Your task to perform on an android device: Search for "apple airpods pro" on amazon.com, select the first entry, and add it to the cart. Image 0: 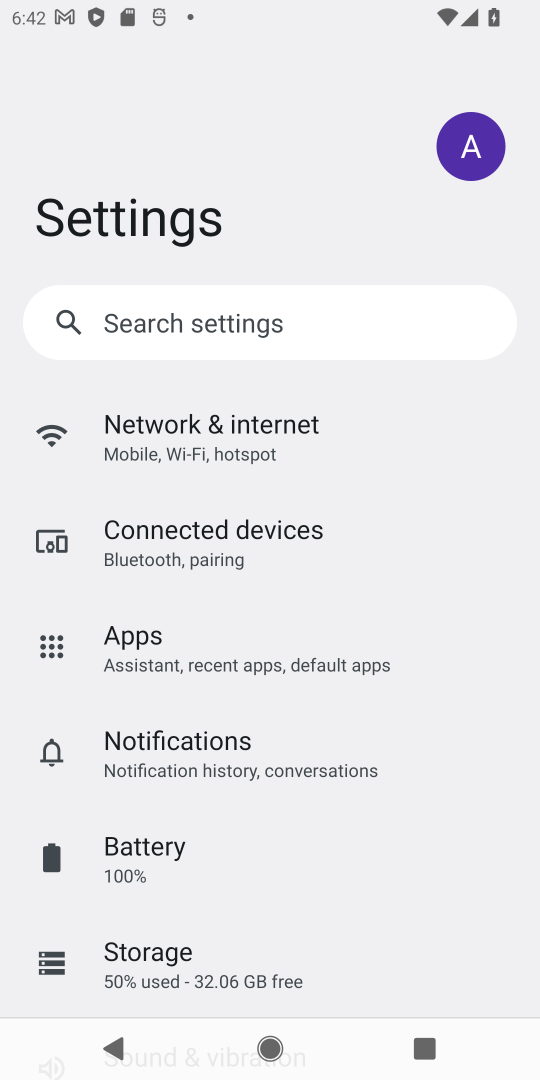
Step 0: press home button
Your task to perform on an android device: Search for "apple airpods pro" on amazon.com, select the first entry, and add it to the cart. Image 1: 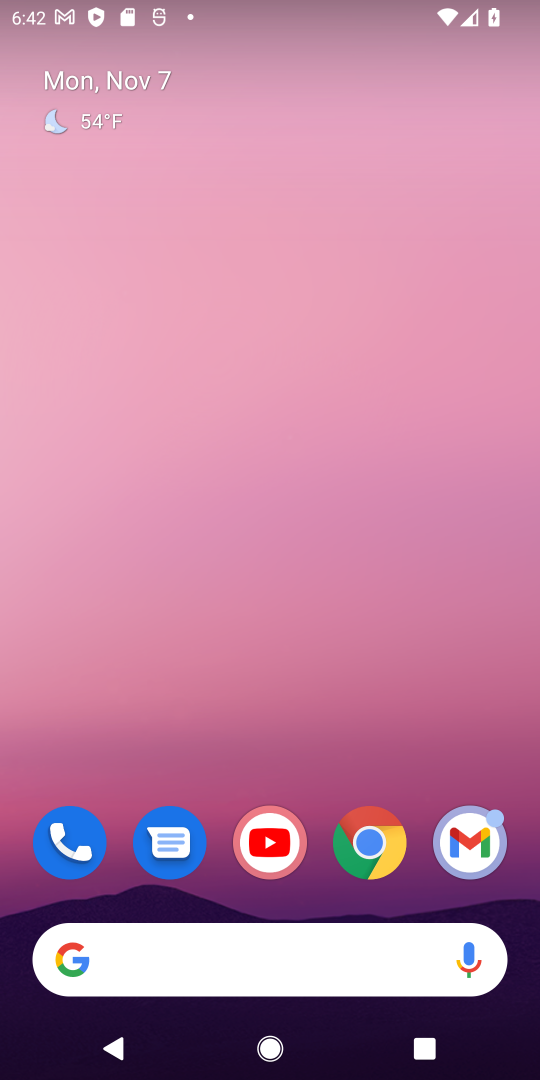
Step 1: click (365, 840)
Your task to perform on an android device: Search for "apple airpods pro" on amazon.com, select the first entry, and add it to the cart. Image 2: 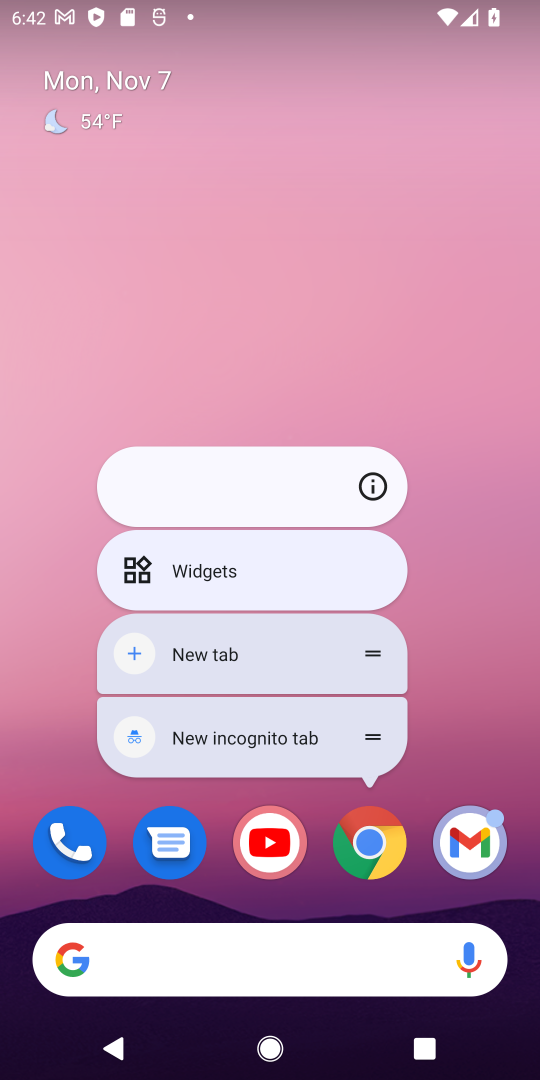
Step 2: click (375, 850)
Your task to perform on an android device: Search for "apple airpods pro" on amazon.com, select the first entry, and add it to the cart. Image 3: 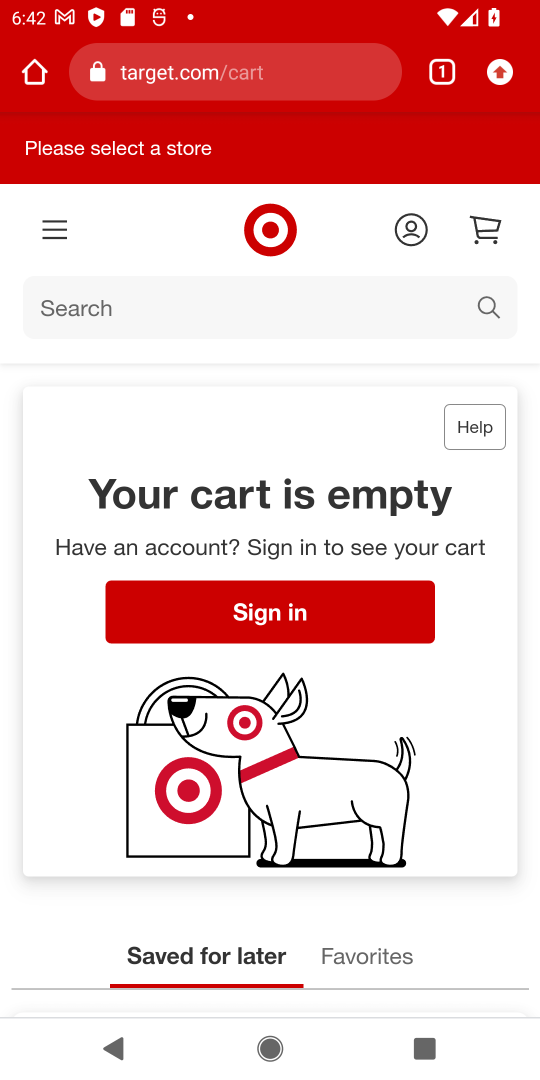
Step 3: click (263, 77)
Your task to perform on an android device: Search for "apple airpods pro" on amazon.com, select the first entry, and add it to the cart. Image 4: 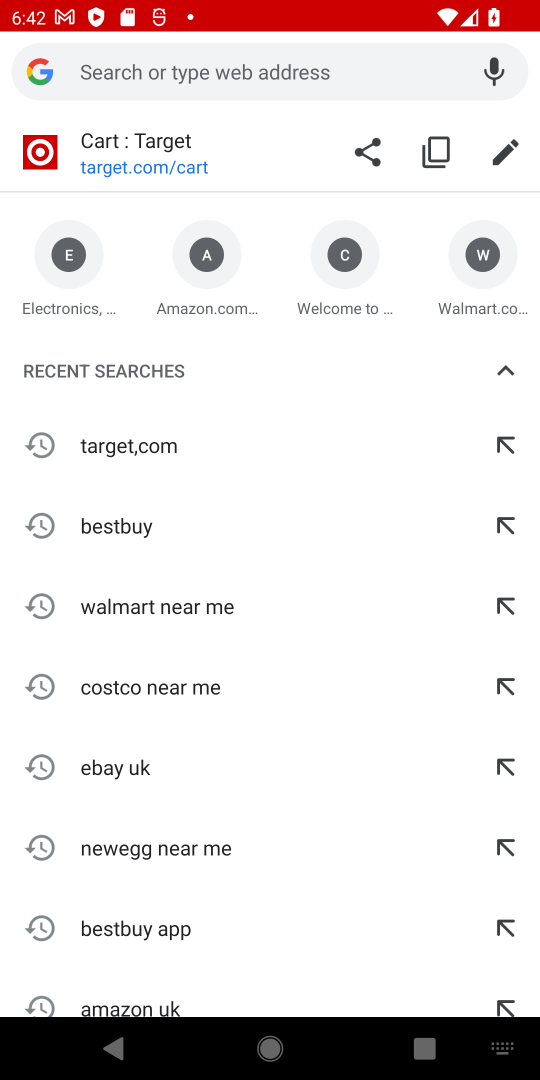
Step 4: click (231, 308)
Your task to perform on an android device: Search for "apple airpods pro" on amazon.com, select the first entry, and add it to the cart. Image 5: 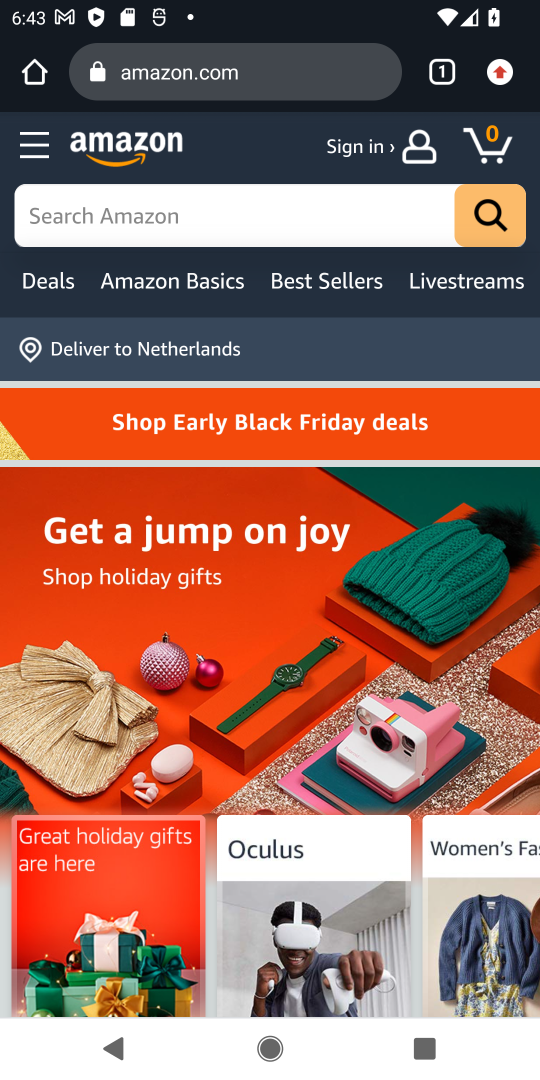
Step 5: click (198, 191)
Your task to perform on an android device: Search for "apple airpods pro" on amazon.com, select the first entry, and add it to the cart. Image 6: 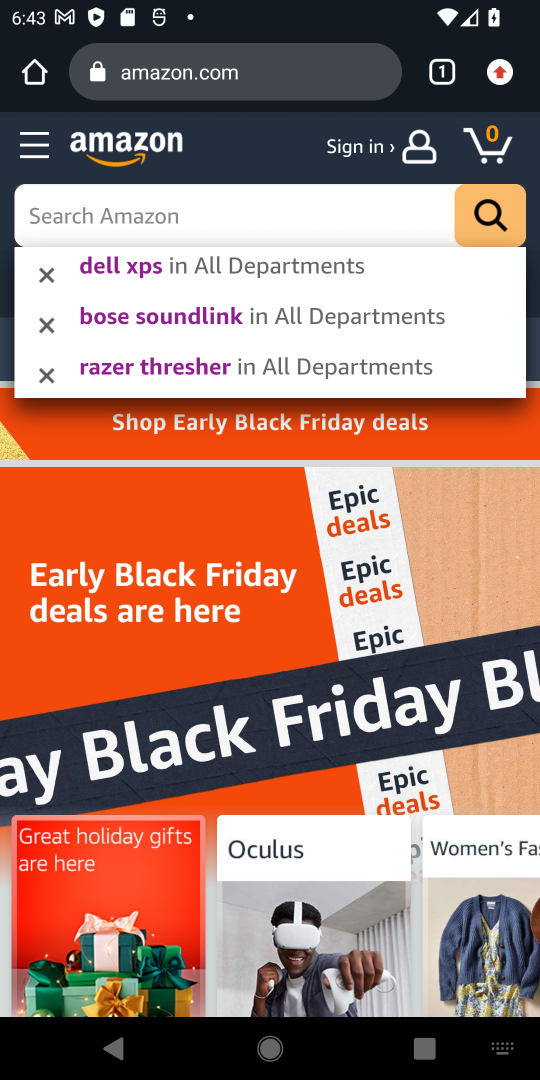
Step 6: press enter
Your task to perform on an android device: Search for "apple airpods pro" on amazon.com, select the first entry, and add it to the cart. Image 7: 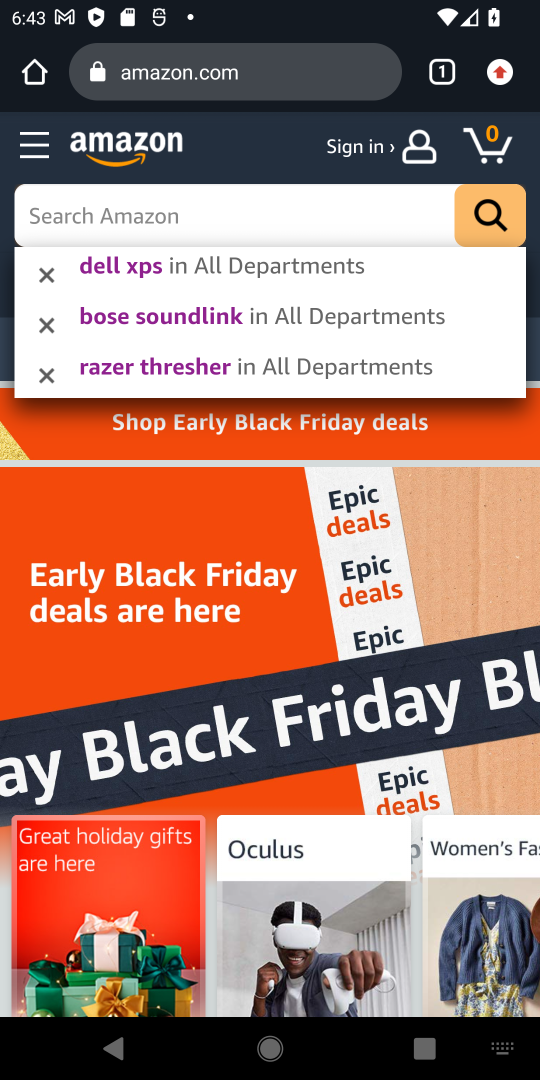
Step 7: type "apple airpods pro"
Your task to perform on an android device: Search for "apple airpods pro" on amazon.com, select the first entry, and add it to the cart. Image 8: 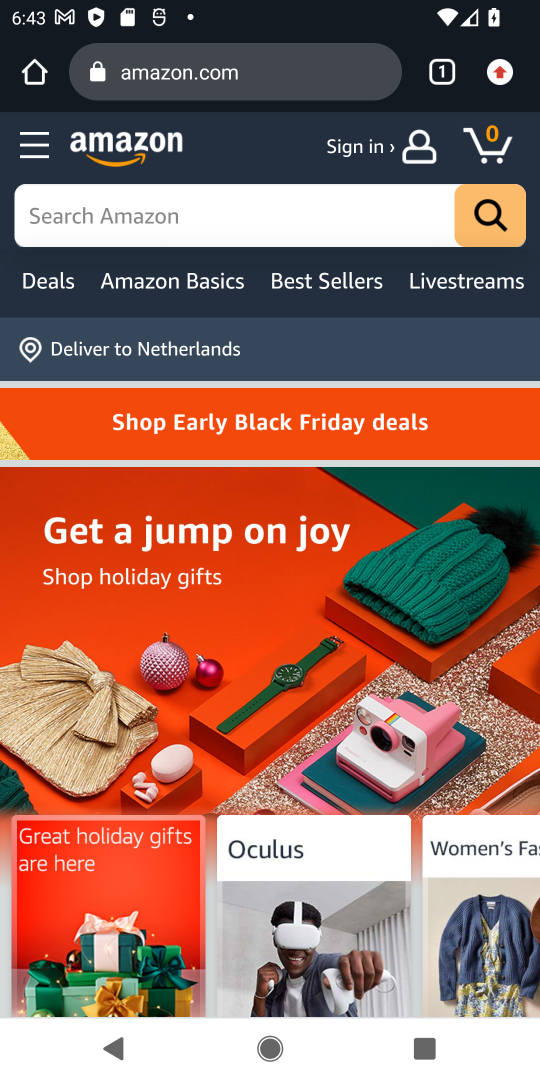
Step 8: click (153, 207)
Your task to perform on an android device: Search for "apple airpods pro" on amazon.com, select the first entry, and add it to the cart. Image 9: 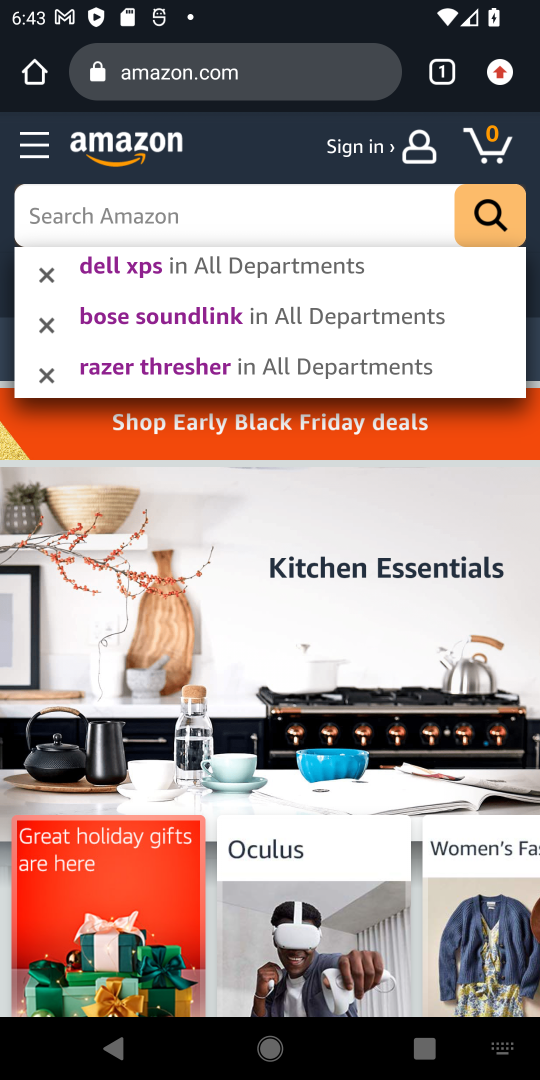
Step 9: press enter
Your task to perform on an android device: Search for "apple airpods pro" on amazon.com, select the first entry, and add it to the cart. Image 10: 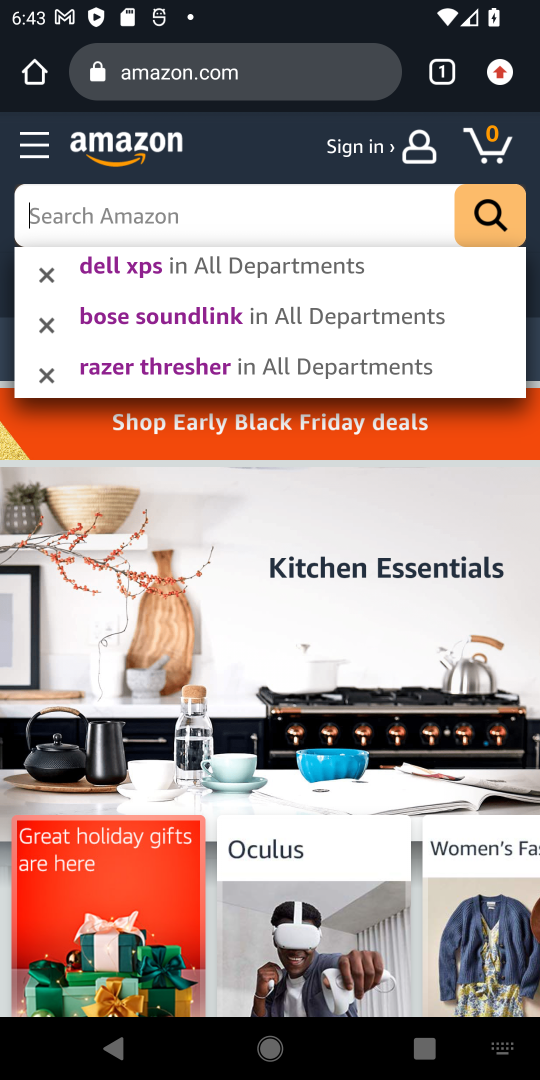
Step 10: type "apple airpods pro"
Your task to perform on an android device: Search for "apple airpods pro" on amazon.com, select the first entry, and add it to the cart. Image 11: 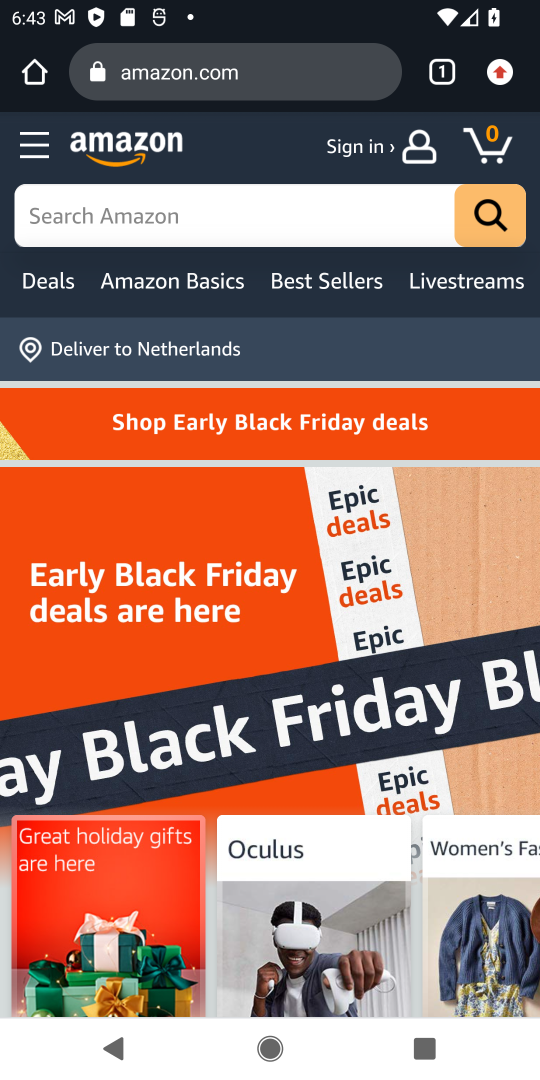
Step 11: click (185, 207)
Your task to perform on an android device: Search for "apple airpods pro" on amazon.com, select the first entry, and add it to the cart. Image 12: 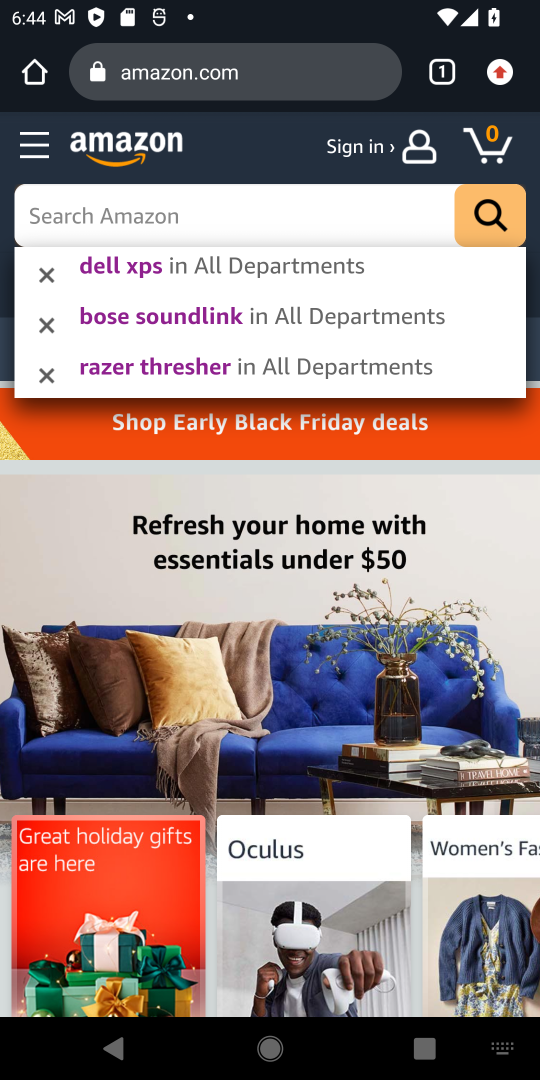
Step 12: type "apple airpods pro"
Your task to perform on an android device: Search for "apple airpods pro" on amazon.com, select the first entry, and add it to the cart. Image 13: 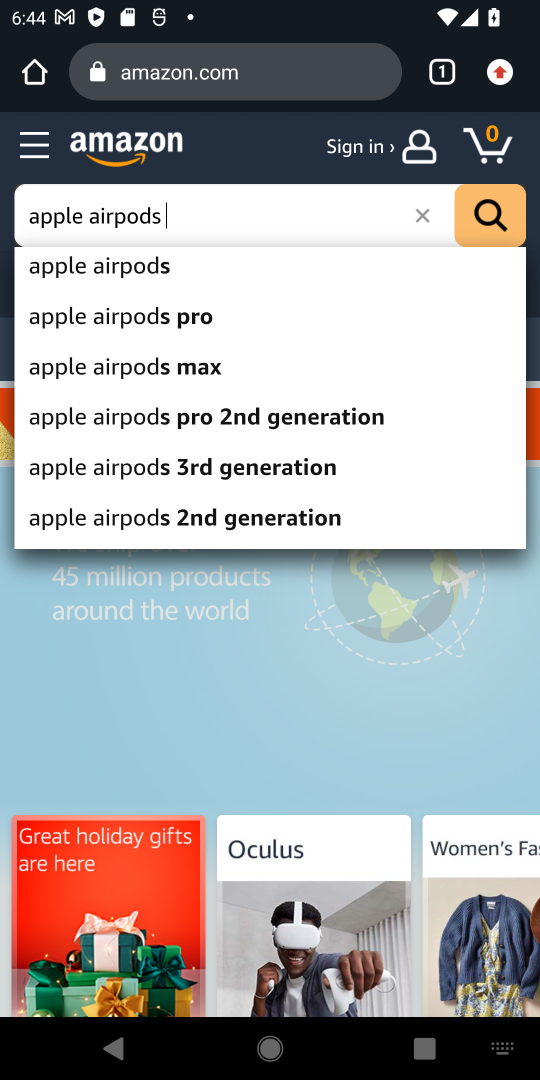
Step 13: press enter
Your task to perform on an android device: Search for "apple airpods pro" on amazon.com, select the first entry, and add it to the cart. Image 14: 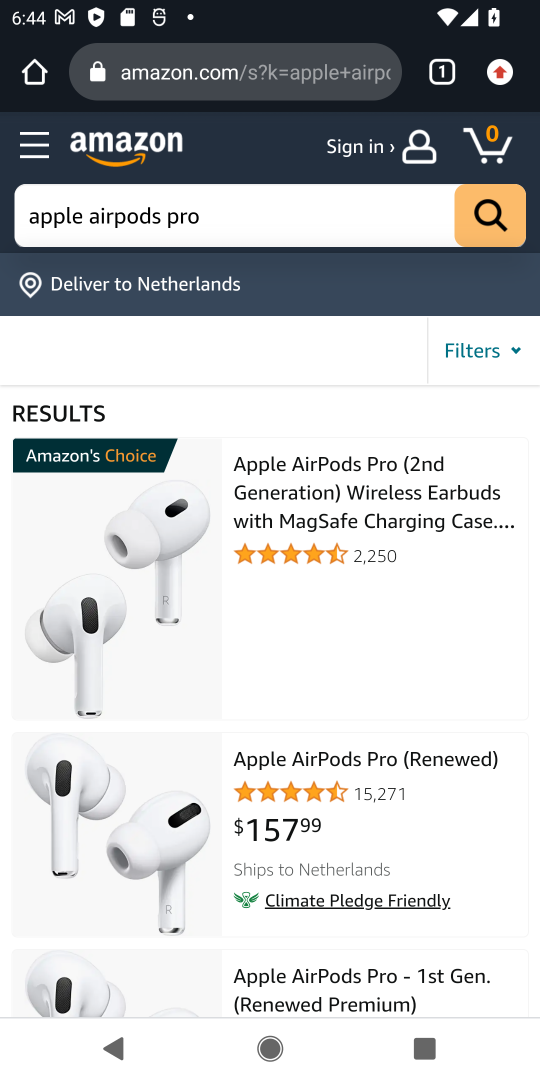
Step 14: click (325, 498)
Your task to perform on an android device: Search for "apple airpods pro" on amazon.com, select the first entry, and add it to the cart. Image 15: 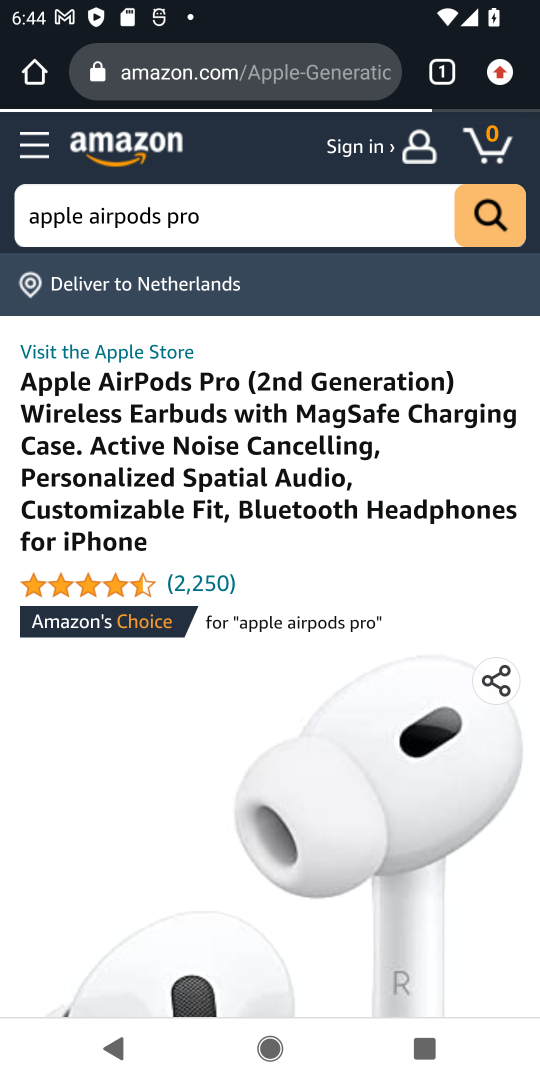
Step 15: task complete